Your task to perform on an android device: Open the Play Movies app and select the watchlist tab. Image 0: 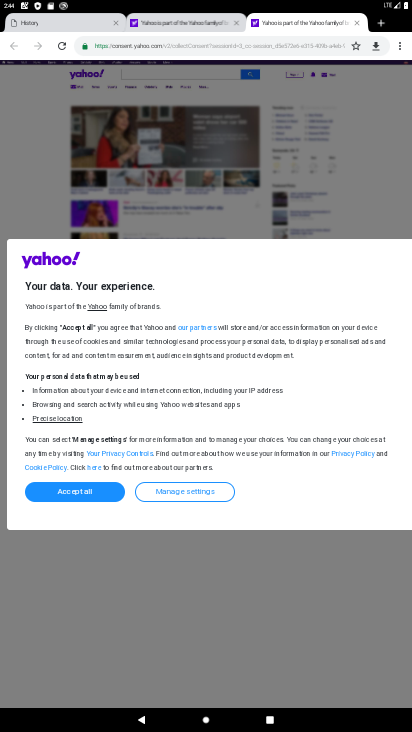
Step 0: press home button
Your task to perform on an android device: Open the Play Movies app and select the watchlist tab. Image 1: 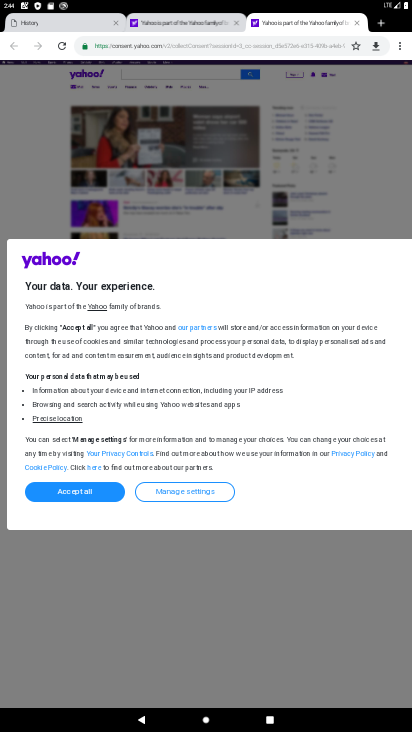
Step 1: press home button
Your task to perform on an android device: Open the Play Movies app and select the watchlist tab. Image 2: 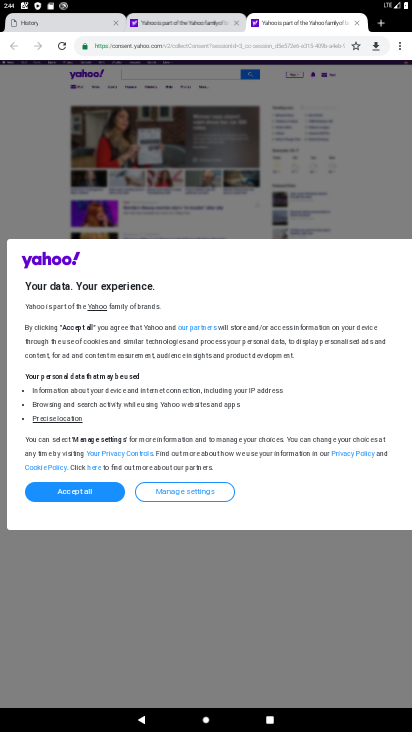
Step 2: click (244, 201)
Your task to perform on an android device: Open the Play Movies app and select the watchlist tab. Image 3: 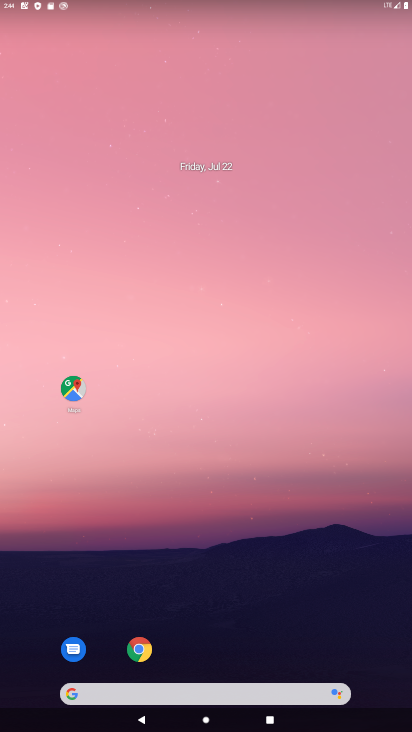
Step 3: drag from (193, 634) to (293, 152)
Your task to perform on an android device: Open the Play Movies app and select the watchlist tab. Image 4: 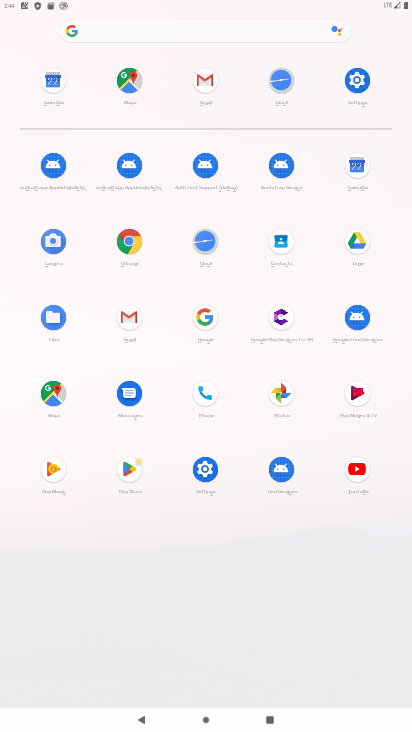
Step 4: drag from (179, 536) to (221, 174)
Your task to perform on an android device: Open the Play Movies app and select the watchlist tab. Image 5: 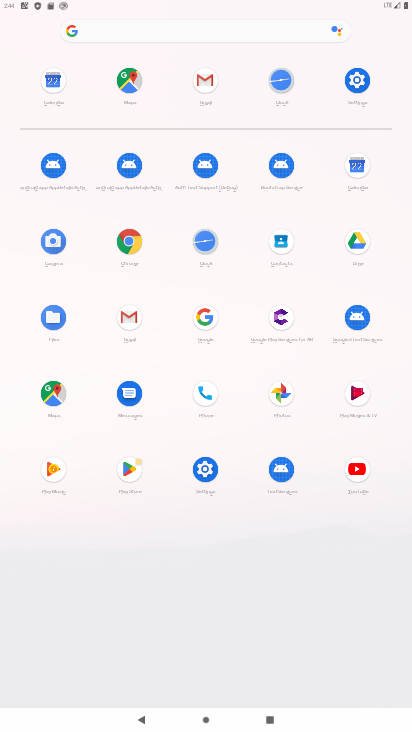
Step 5: click (208, 240)
Your task to perform on an android device: Open the Play Movies app and select the watchlist tab. Image 6: 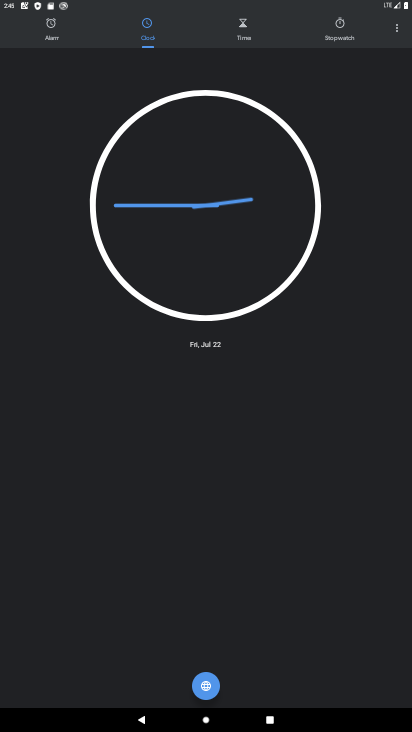
Step 6: drag from (222, 576) to (313, 220)
Your task to perform on an android device: Open the Play Movies app and select the watchlist tab. Image 7: 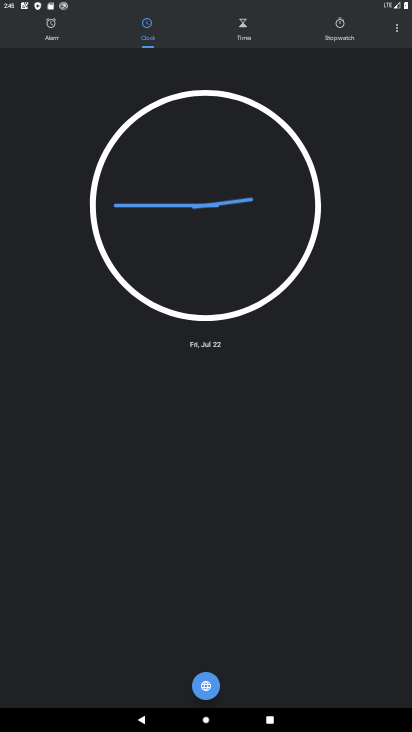
Step 7: drag from (296, 608) to (275, 172)
Your task to perform on an android device: Open the Play Movies app and select the watchlist tab. Image 8: 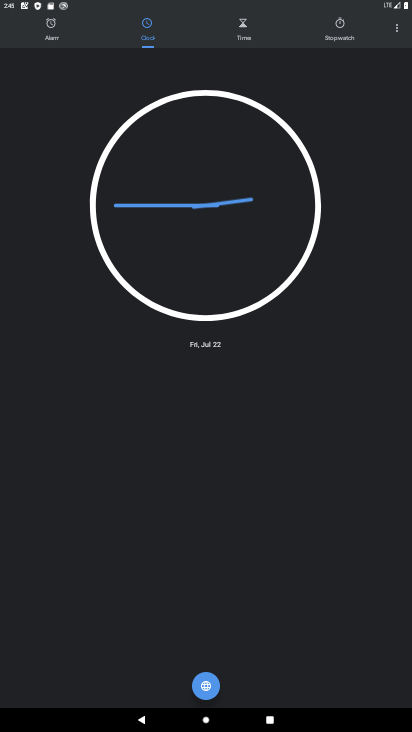
Step 8: click (343, 13)
Your task to perform on an android device: Open the Play Movies app and select the watchlist tab. Image 9: 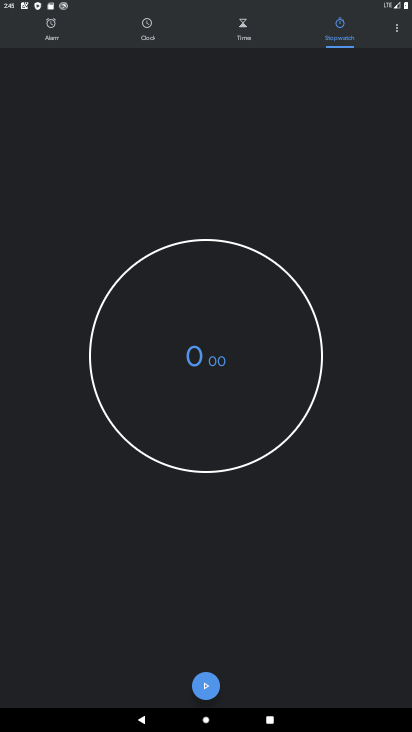
Step 9: press home button
Your task to perform on an android device: Open the Play Movies app and select the watchlist tab. Image 10: 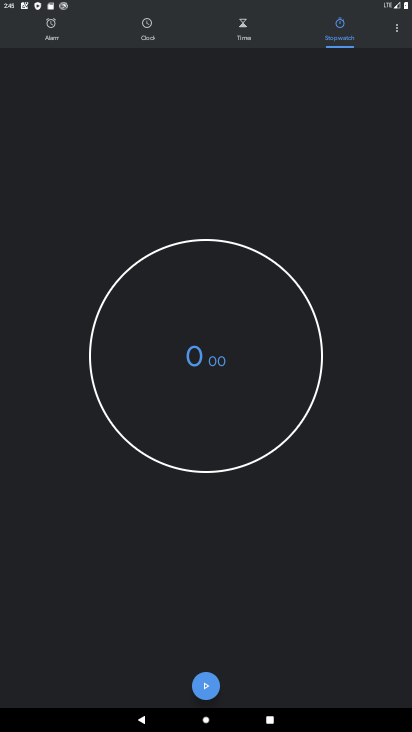
Step 10: press home button
Your task to perform on an android device: Open the Play Movies app and select the watchlist tab. Image 11: 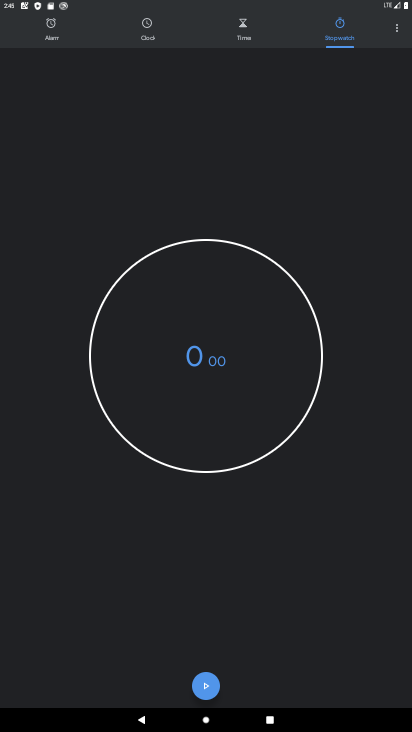
Step 11: drag from (281, 0) to (215, 12)
Your task to perform on an android device: Open the Play Movies app and select the watchlist tab. Image 12: 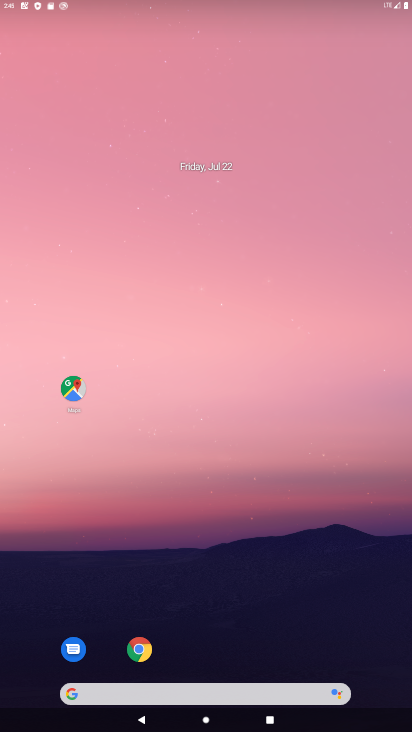
Step 12: drag from (235, 669) to (278, 87)
Your task to perform on an android device: Open the Play Movies app and select the watchlist tab. Image 13: 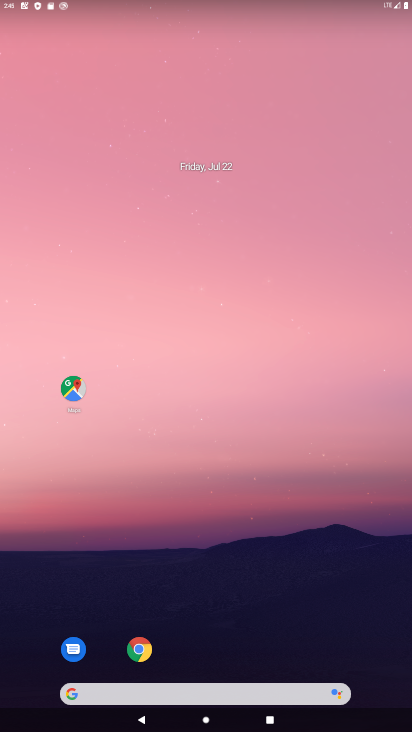
Step 13: drag from (192, 667) to (325, 189)
Your task to perform on an android device: Open the Play Movies app and select the watchlist tab. Image 14: 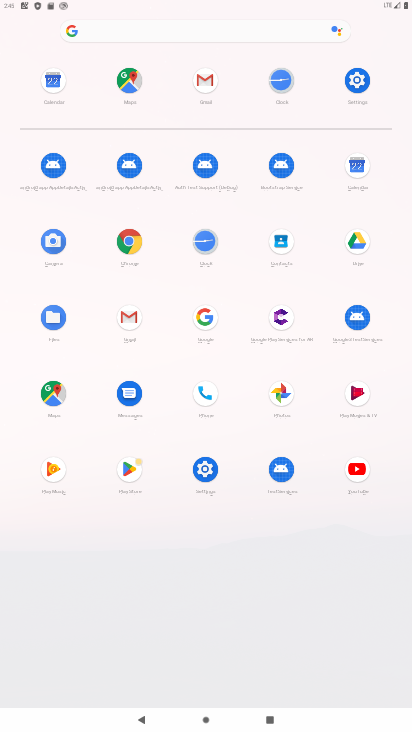
Step 14: click (350, 395)
Your task to perform on an android device: Open the Play Movies app and select the watchlist tab. Image 15: 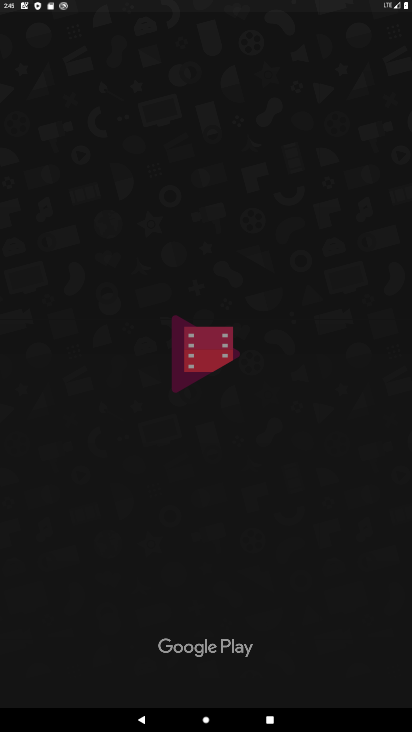
Step 15: drag from (256, 549) to (329, 190)
Your task to perform on an android device: Open the Play Movies app and select the watchlist tab. Image 16: 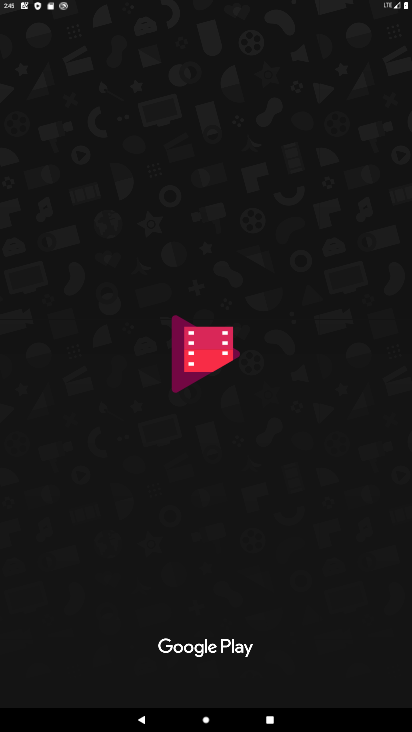
Step 16: drag from (249, 424) to (257, 301)
Your task to perform on an android device: Open the Play Movies app and select the watchlist tab. Image 17: 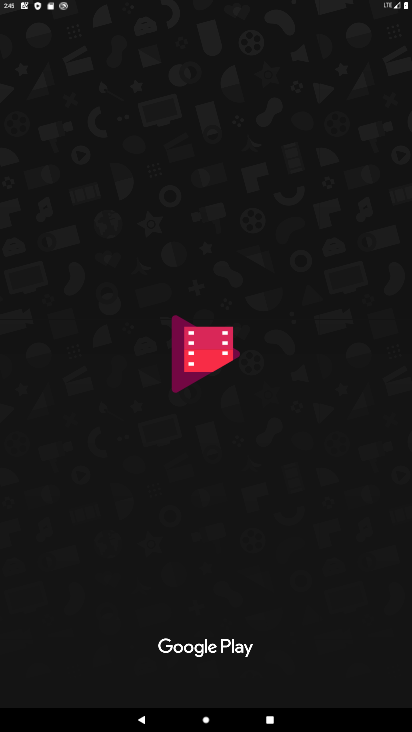
Step 17: drag from (271, 389) to (342, 215)
Your task to perform on an android device: Open the Play Movies app and select the watchlist tab. Image 18: 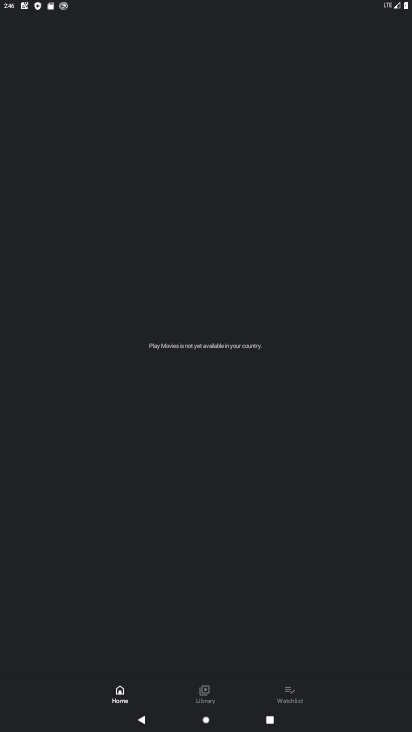
Step 18: drag from (245, 530) to (321, 310)
Your task to perform on an android device: Open the Play Movies app and select the watchlist tab. Image 19: 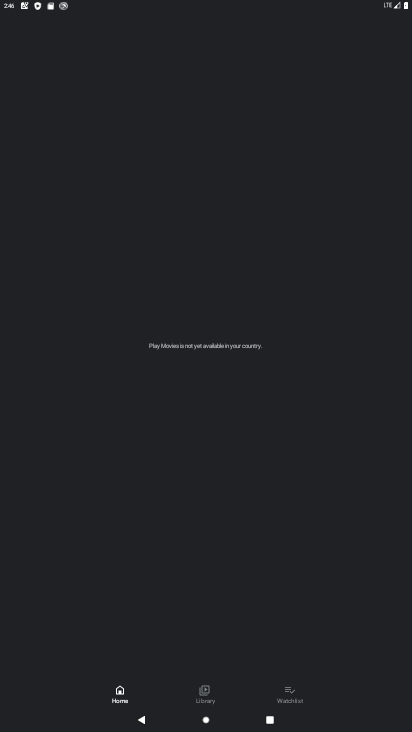
Step 19: click (277, 690)
Your task to perform on an android device: Open the Play Movies app and select the watchlist tab. Image 20: 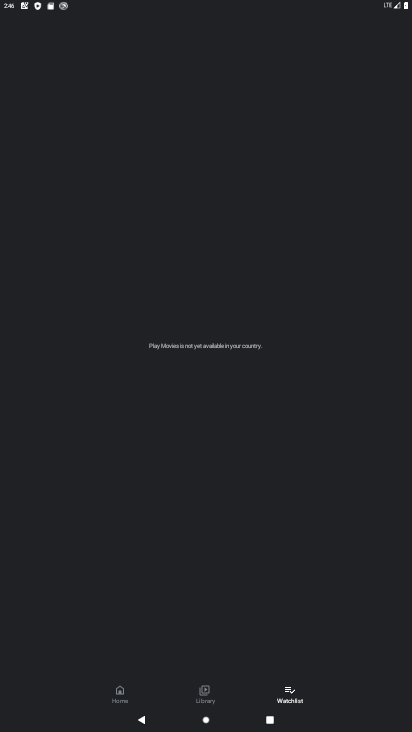
Step 20: task complete